Your task to perform on an android device: Open Google Chrome Image 0: 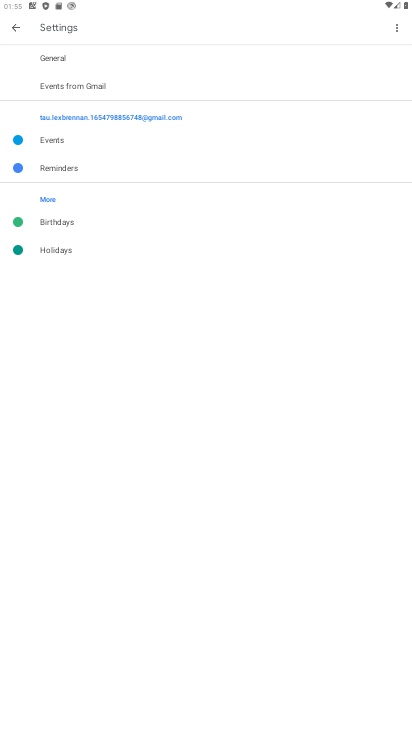
Step 0: press home button
Your task to perform on an android device: Open Google Chrome Image 1: 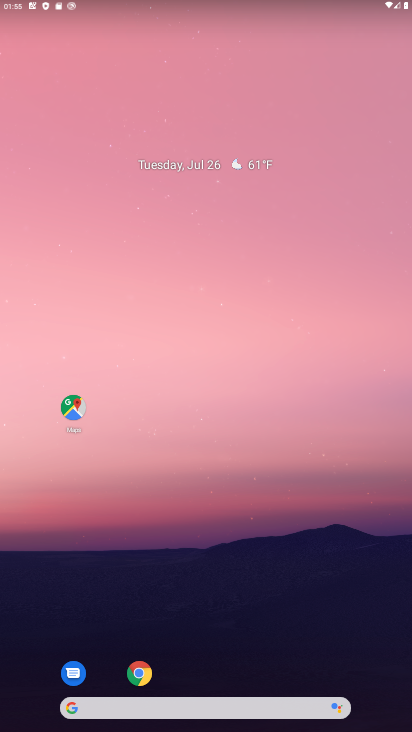
Step 1: click (138, 671)
Your task to perform on an android device: Open Google Chrome Image 2: 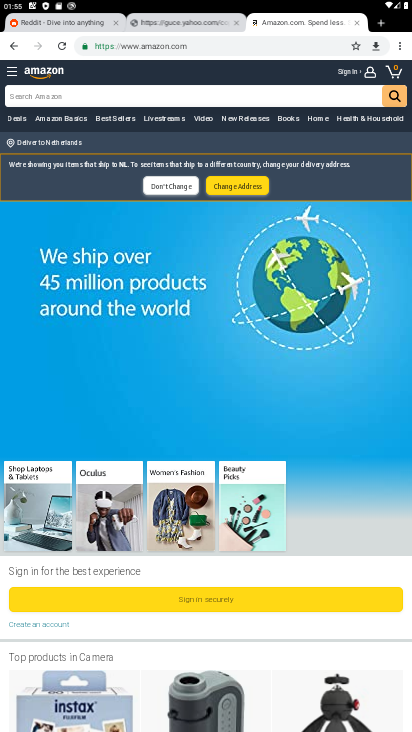
Step 2: task complete